Your task to perform on an android device: Open ESPN.com Image 0: 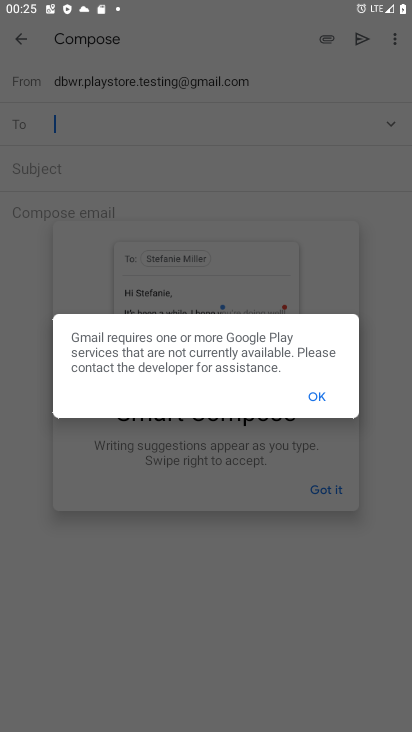
Step 0: press home button
Your task to perform on an android device: Open ESPN.com Image 1: 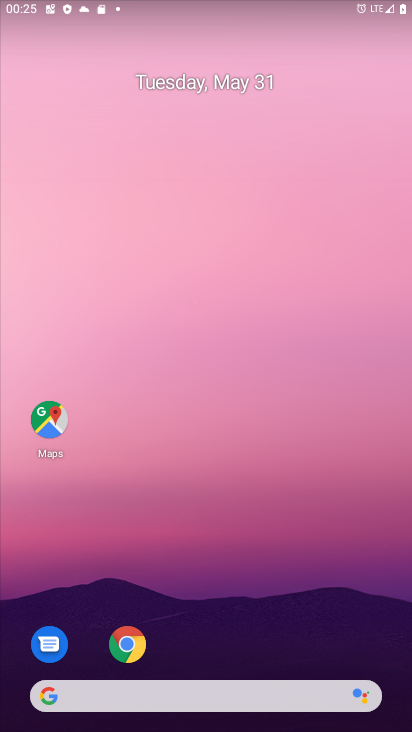
Step 1: click (126, 644)
Your task to perform on an android device: Open ESPN.com Image 2: 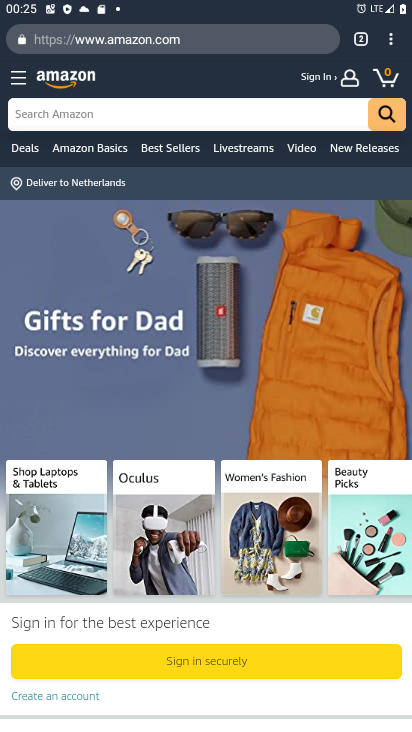
Step 2: click (214, 37)
Your task to perform on an android device: Open ESPN.com Image 3: 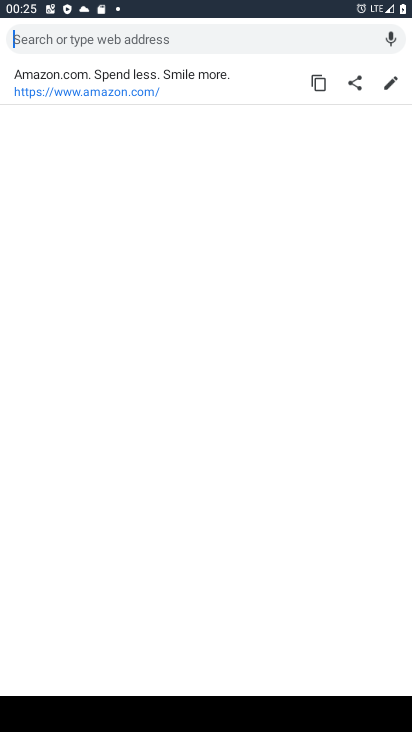
Step 3: type "espn.com"
Your task to perform on an android device: Open ESPN.com Image 4: 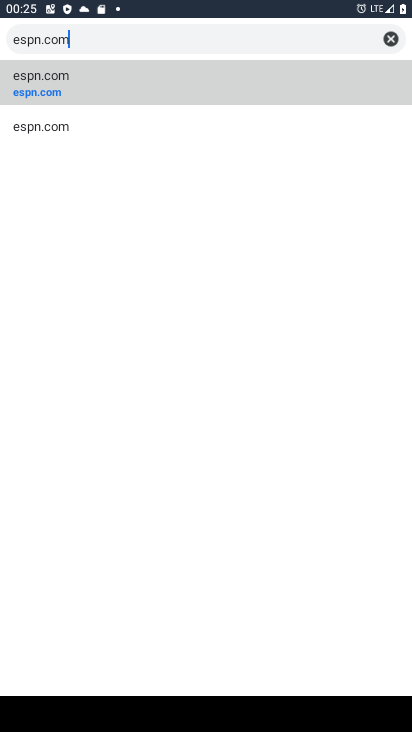
Step 4: click (85, 81)
Your task to perform on an android device: Open ESPN.com Image 5: 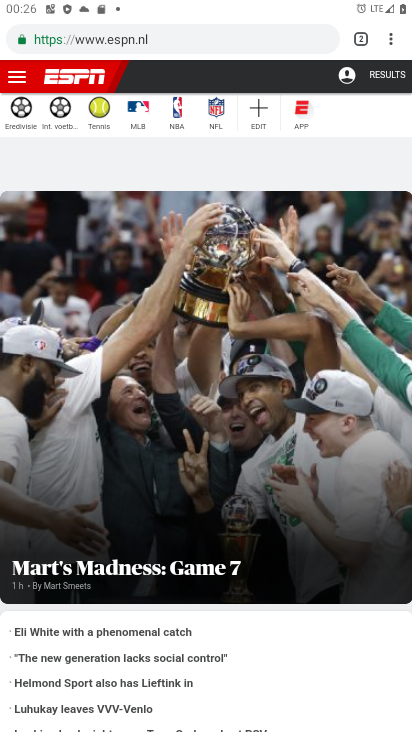
Step 5: task complete